Your task to perform on an android device: Clear the cart on ebay.com. Image 0: 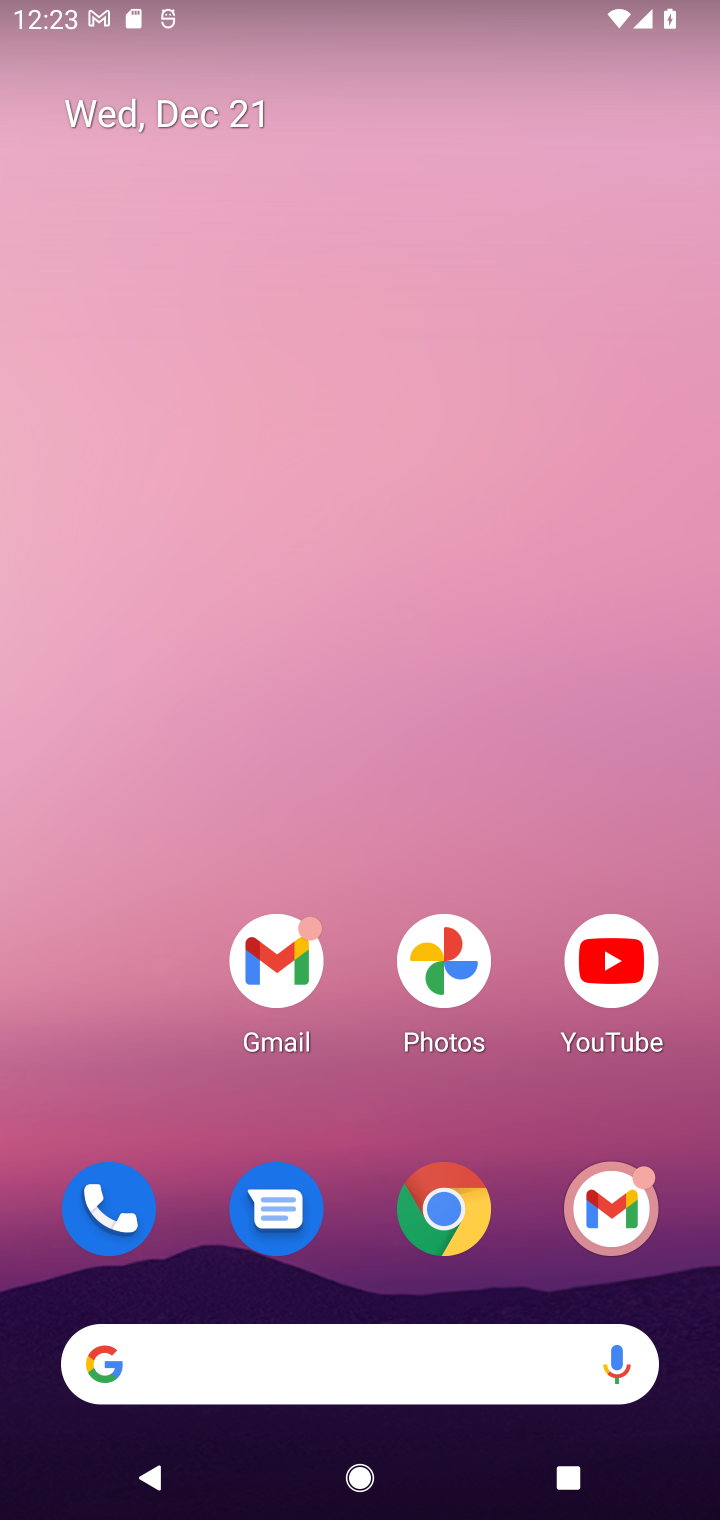
Step 0: click (451, 1211)
Your task to perform on an android device: Clear the cart on ebay.com. Image 1: 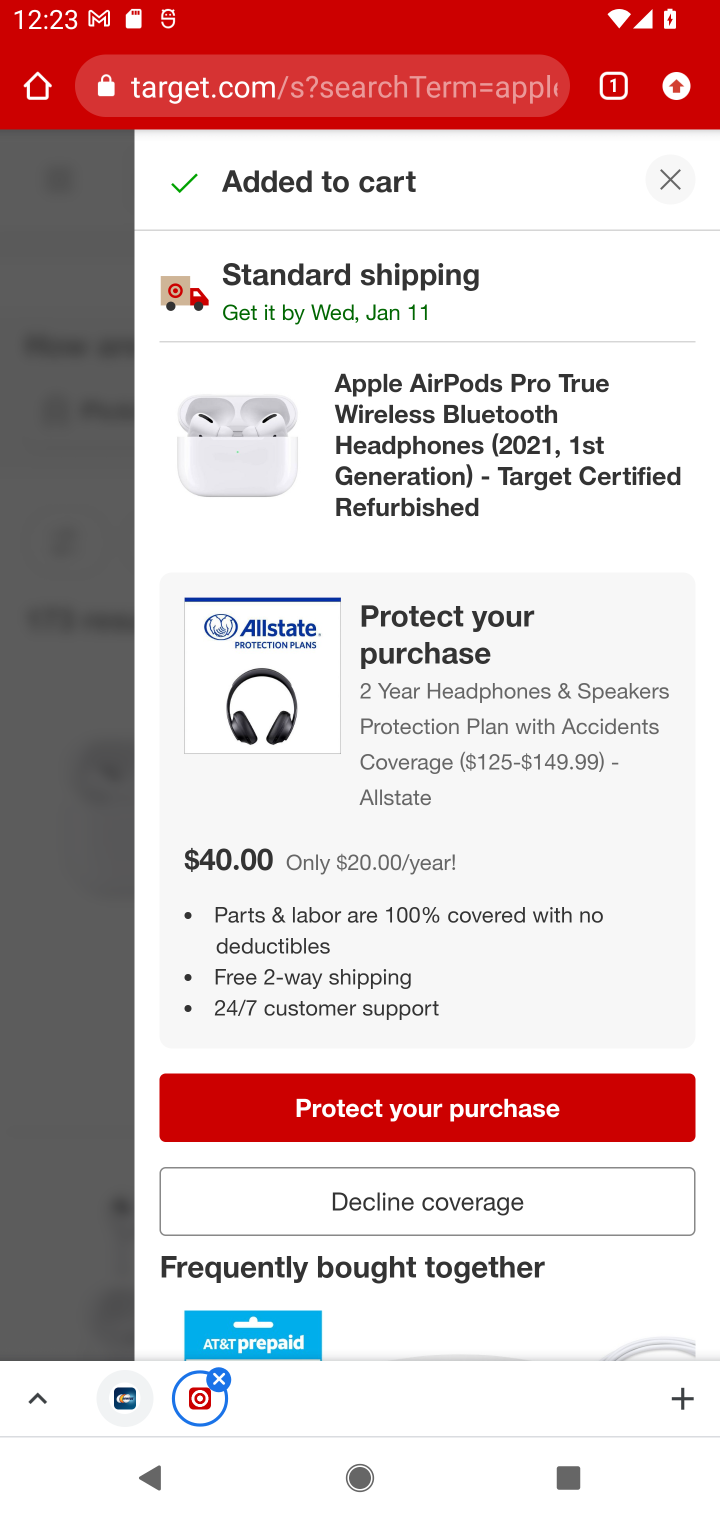
Step 1: click (245, 83)
Your task to perform on an android device: Clear the cart on ebay.com. Image 2: 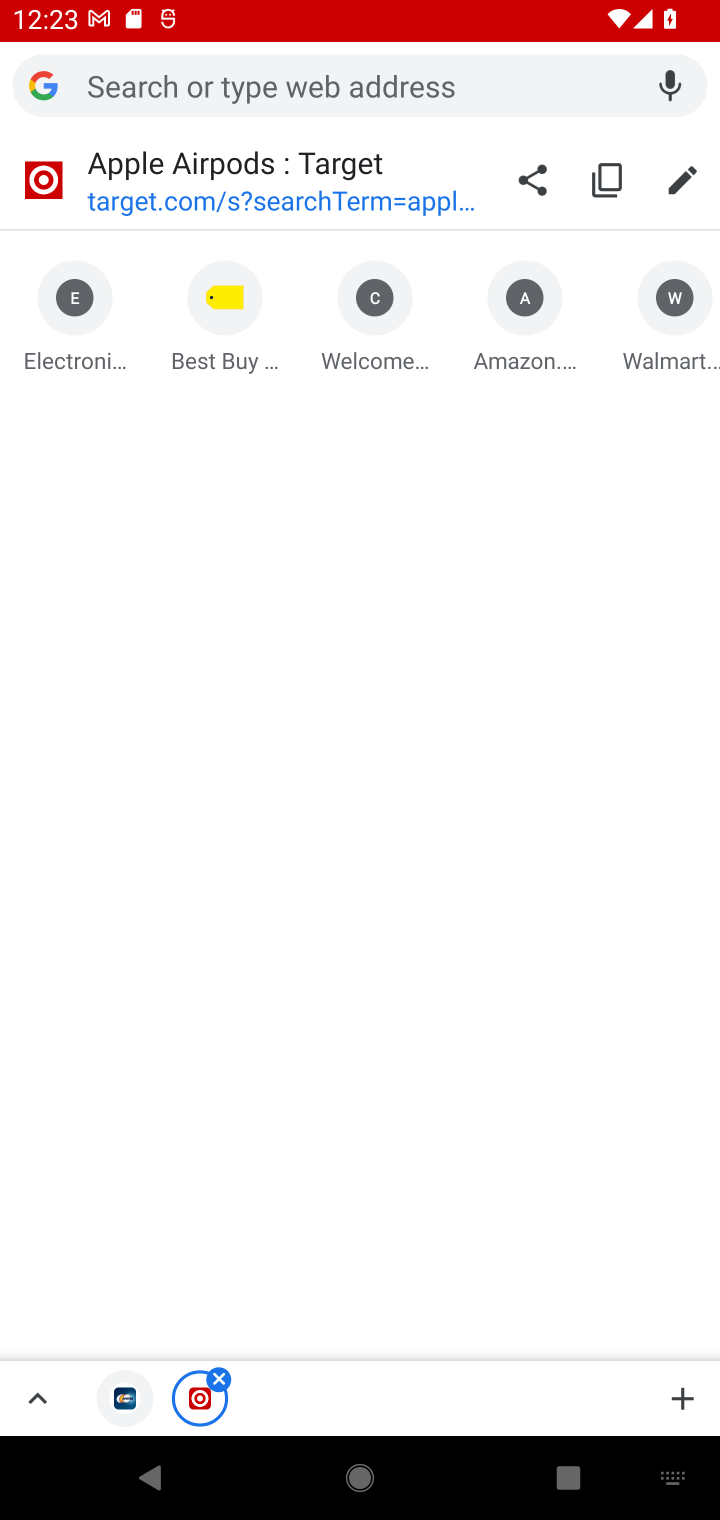
Step 2: type "ebay.com"
Your task to perform on an android device: Clear the cart on ebay.com. Image 3: 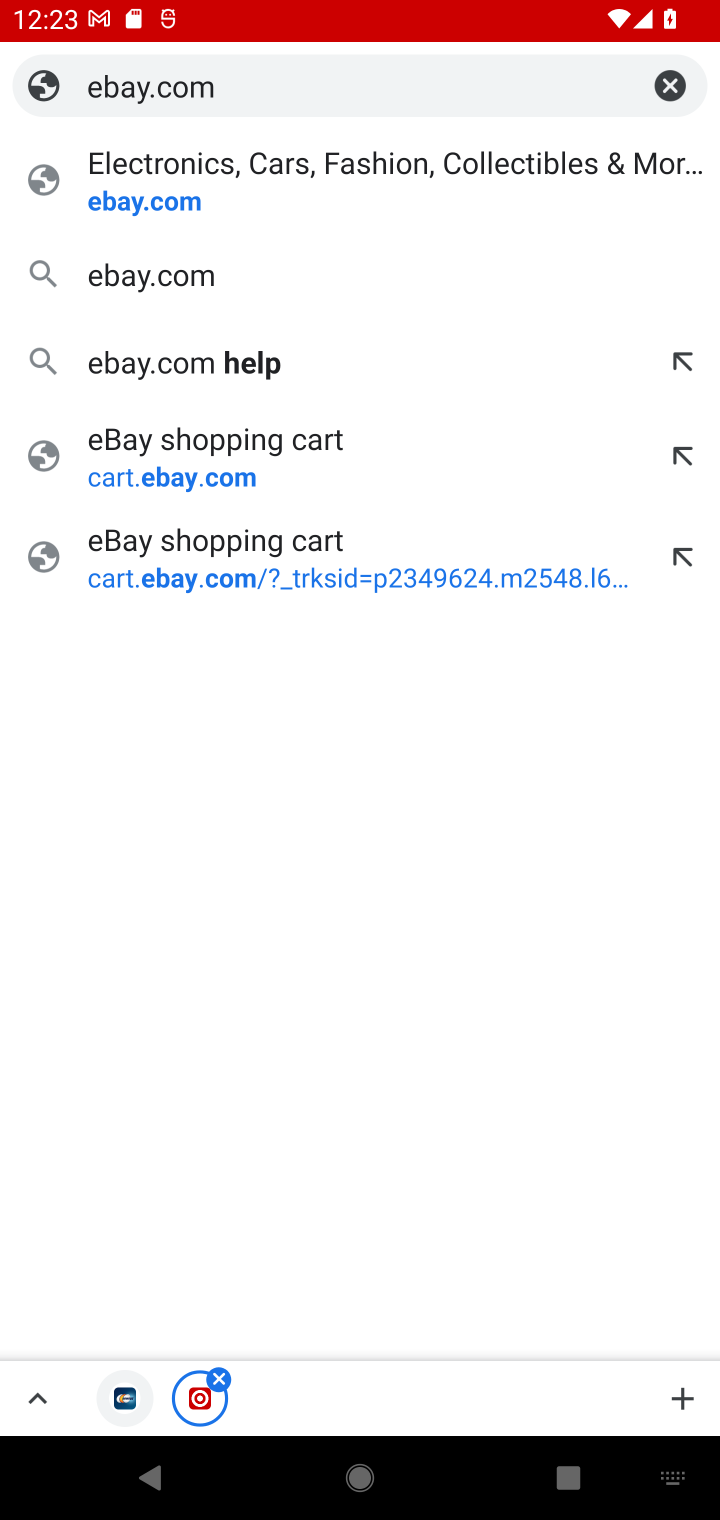
Step 3: click (159, 195)
Your task to perform on an android device: Clear the cart on ebay.com. Image 4: 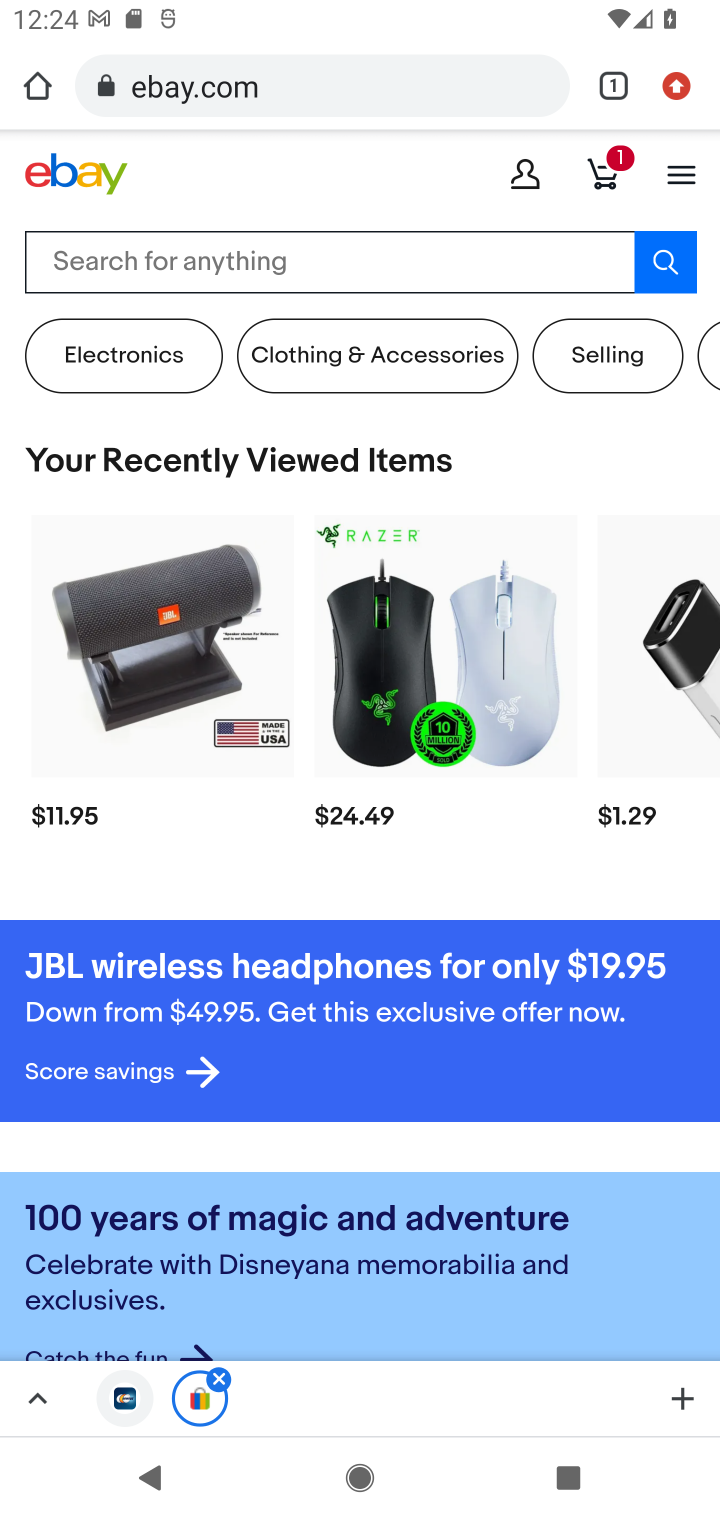
Step 4: click (602, 170)
Your task to perform on an android device: Clear the cart on ebay.com. Image 5: 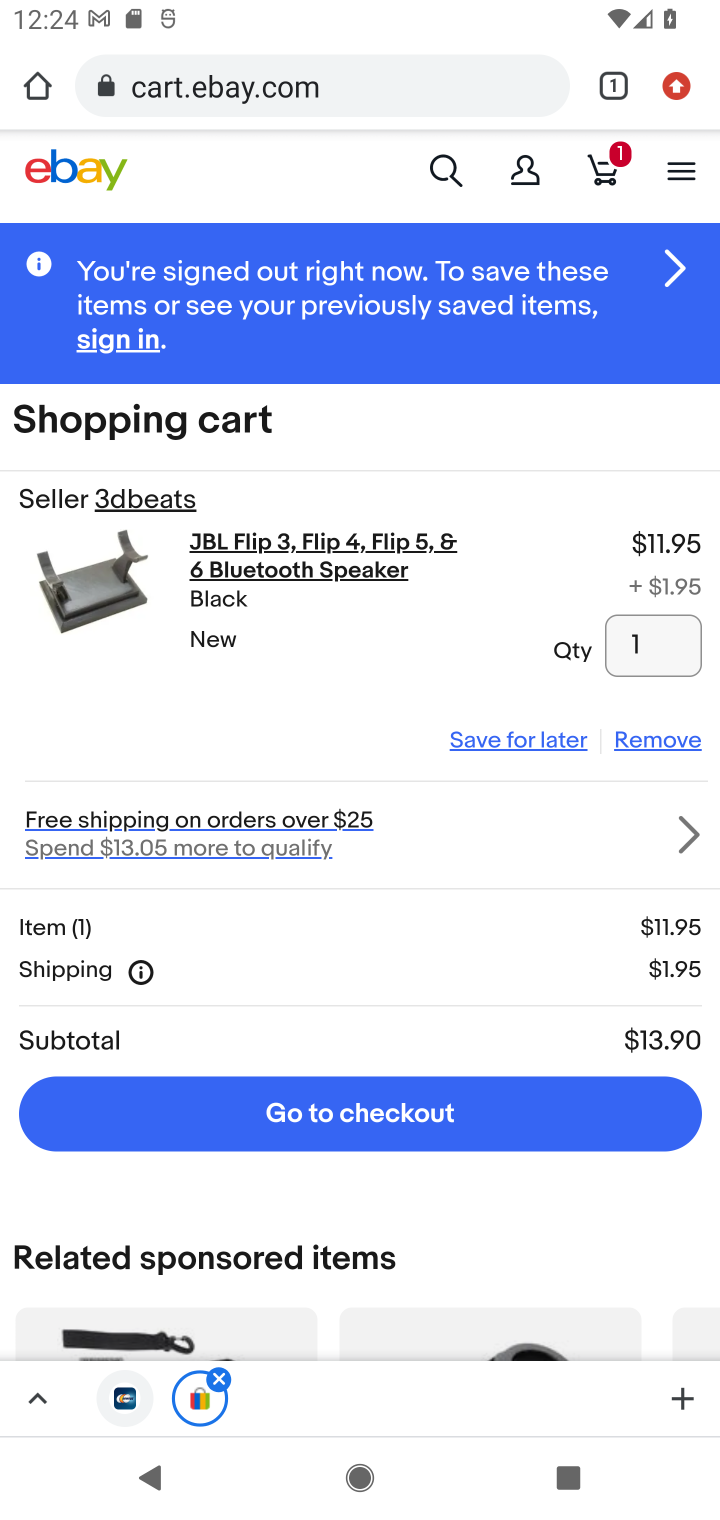
Step 5: click (664, 749)
Your task to perform on an android device: Clear the cart on ebay.com. Image 6: 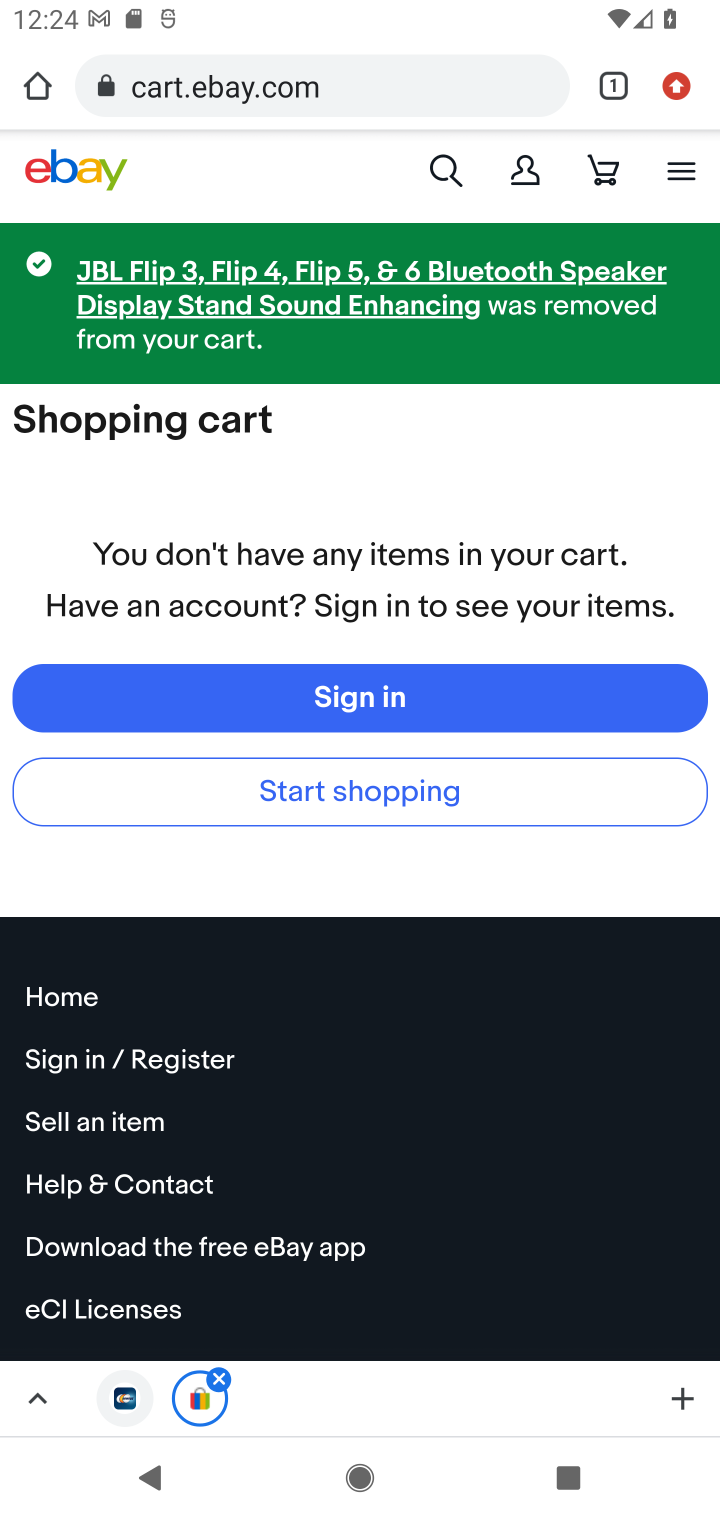
Step 6: task complete